Your task to perform on an android device: delete browsing data in the chrome app Image 0: 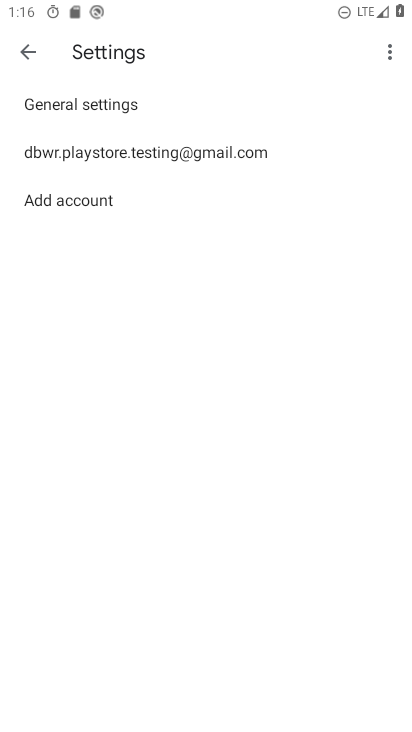
Step 0: press home button
Your task to perform on an android device: delete browsing data in the chrome app Image 1: 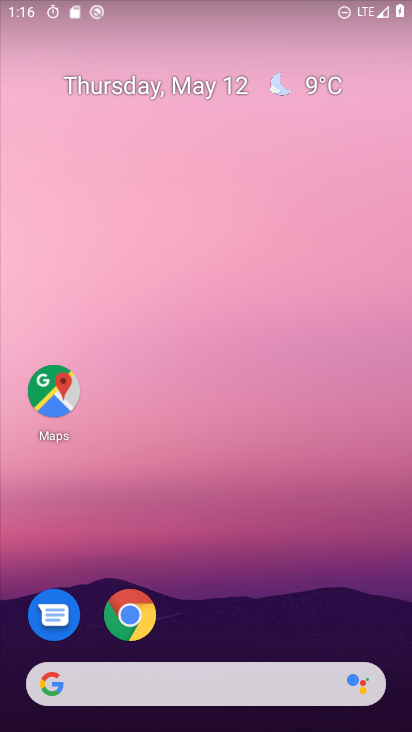
Step 1: click (133, 617)
Your task to perform on an android device: delete browsing data in the chrome app Image 2: 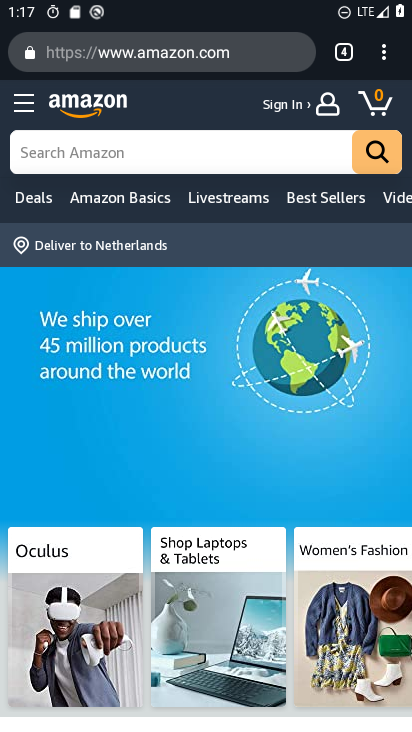
Step 2: drag from (387, 49) to (201, 284)
Your task to perform on an android device: delete browsing data in the chrome app Image 3: 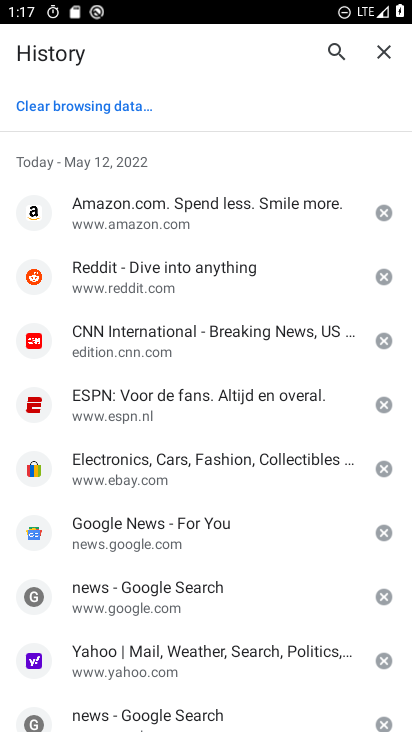
Step 3: click (115, 107)
Your task to perform on an android device: delete browsing data in the chrome app Image 4: 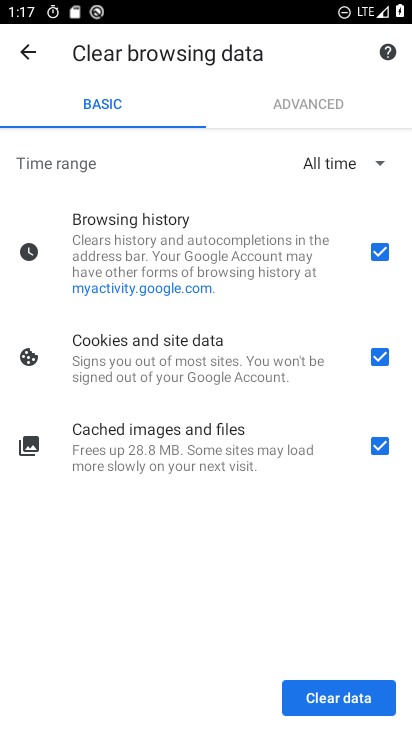
Step 4: click (366, 697)
Your task to perform on an android device: delete browsing data in the chrome app Image 5: 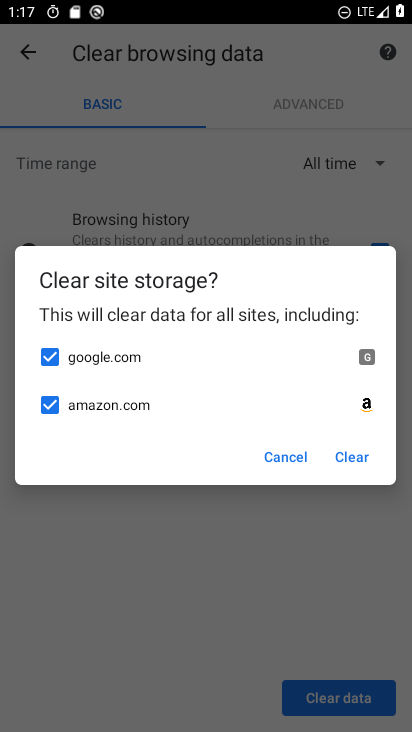
Step 5: click (358, 459)
Your task to perform on an android device: delete browsing data in the chrome app Image 6: 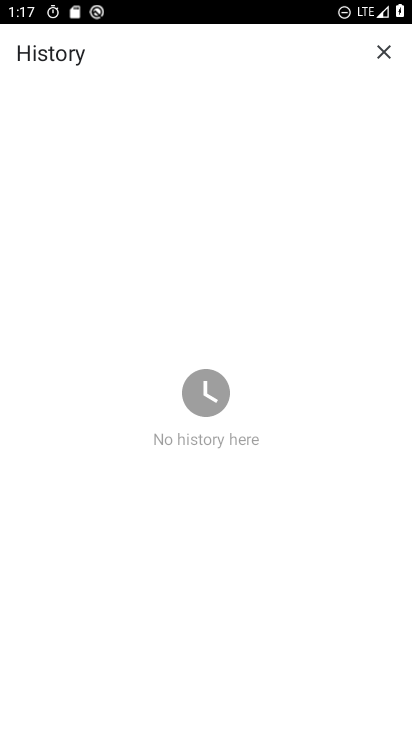
Step 6: task complete